Your task to perform on an android device: Go to Yahoo.com Image 0: 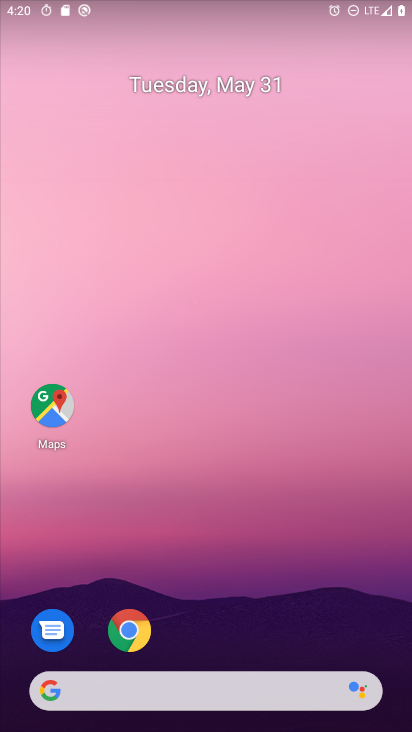
Step 0: drag from (330, 650) to (338, 4)
Your task to perform on an android device: Go to Yahoo.com Image 1: 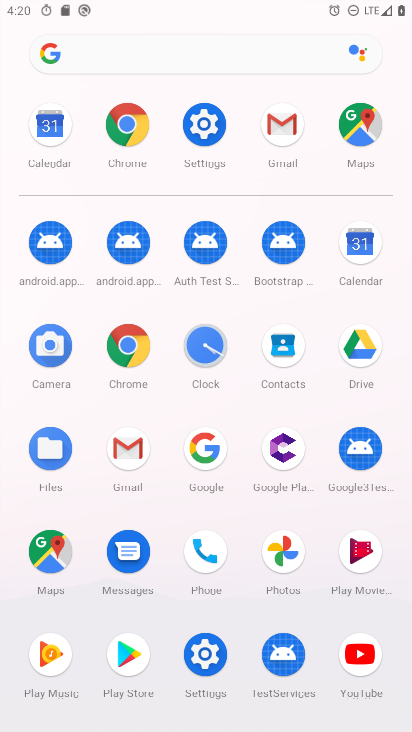
Step 1: click (128, 343)
Your task to perform on an android device: Go to Yahoo.com Image 2: 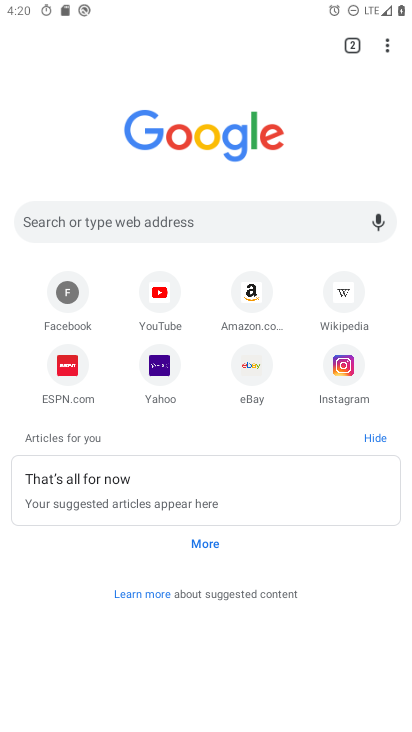
Step 2: click (194, 220)
Your task to perform on an android device: Go to Yahoo.com Image 3: 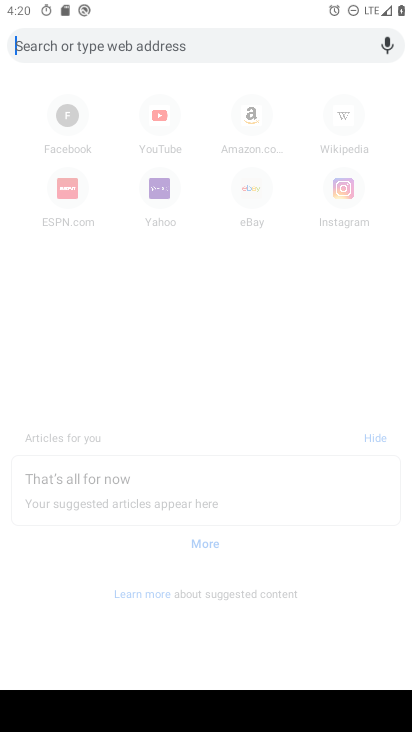
Step 3: type "yahoo.com"
Your task to perform on an android device: Go to Yahoo.com Image 4: 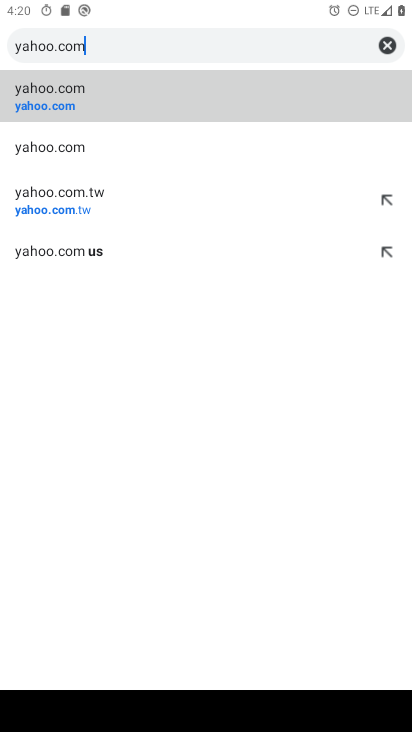
Step 4: click (65, 98)
Your task to perform on an android device: Go to Yahoo.com Image 5: 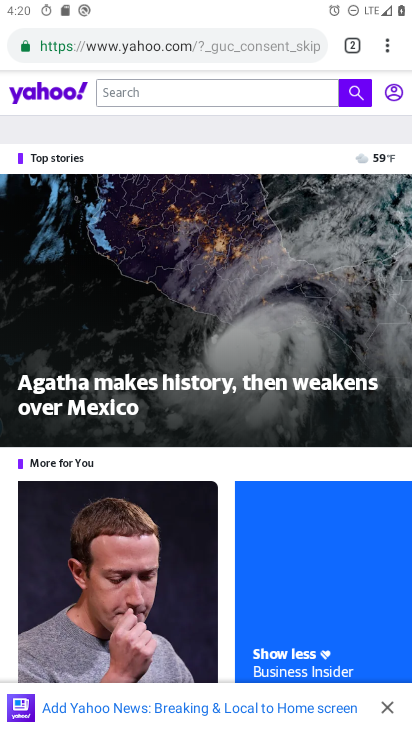
Step 5: task complete